Your task to perform on an android device: Check the news Image 0: 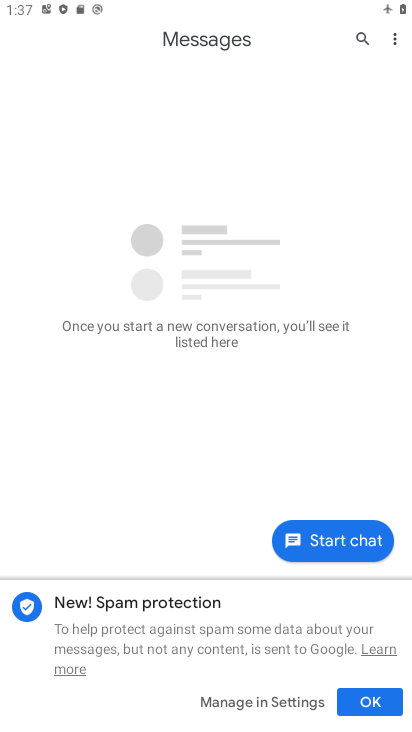
Step 0: drag from (275, 637) to (279, 447)
Your task to perform on an android device: Check the news Image 1: 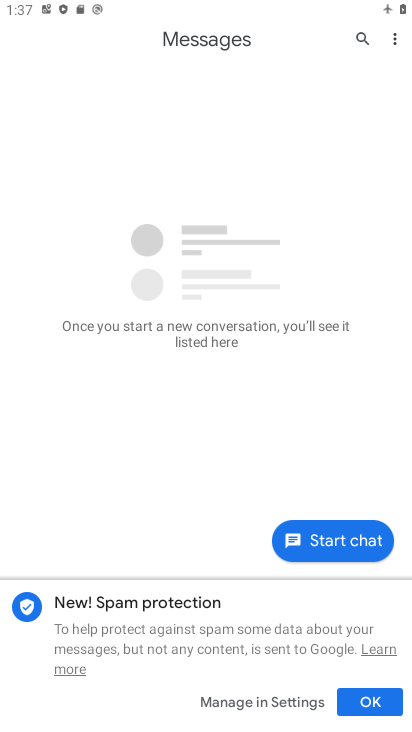
Step 1: press home button
Your task to perform on an android device: Check the news Image 2: 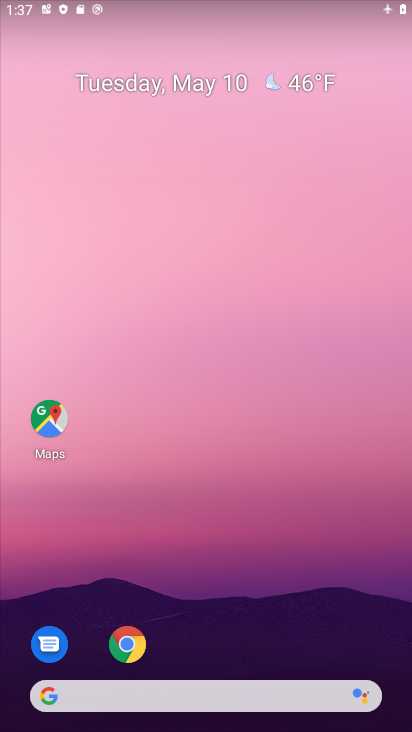
Step 2: drag from (234, 617) to (243, 270)
Your task to perform on an android device: Check the news Image 3: 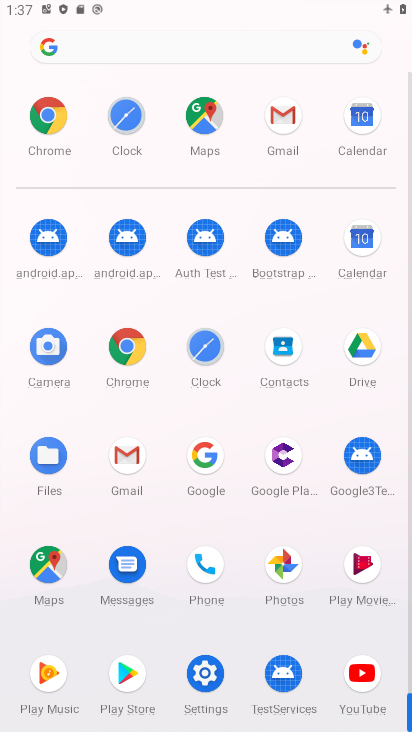
Step 3: click (209, 453)
Your task to perform on an android device: Check the news Image 4: 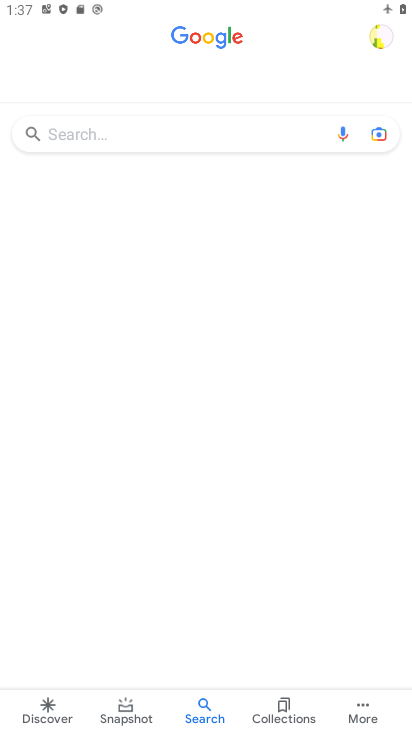
Step 4: click (56, 712)
Your task to perform on an android device: Check the news Image 5: 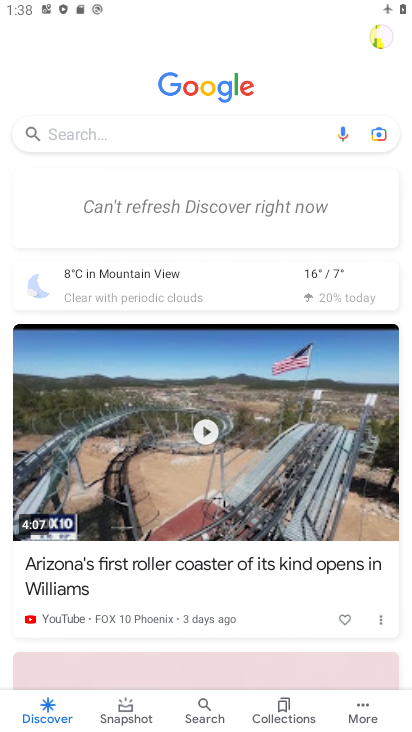
Step 5: task complete